Your task to perform on an android device: allow cookies in the chrome app Image 0: 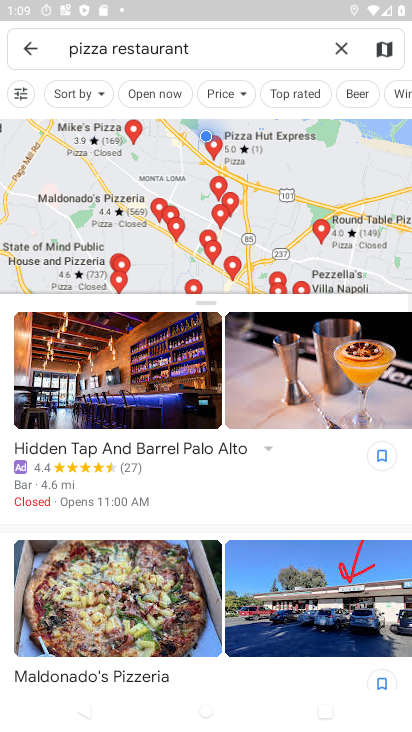
Step 0: press home button
Your task to perform on an android device: allow cookies in the chrome app Image 1: 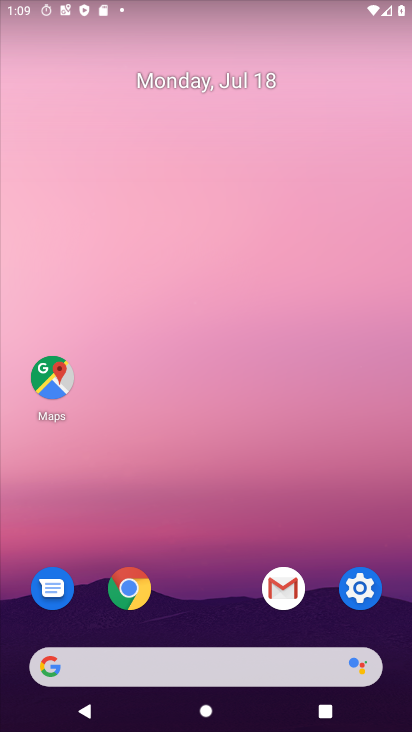
Step 1: click (138, 607)
Your task to perform on an android device: allow cookies in the chrome app Image 2: 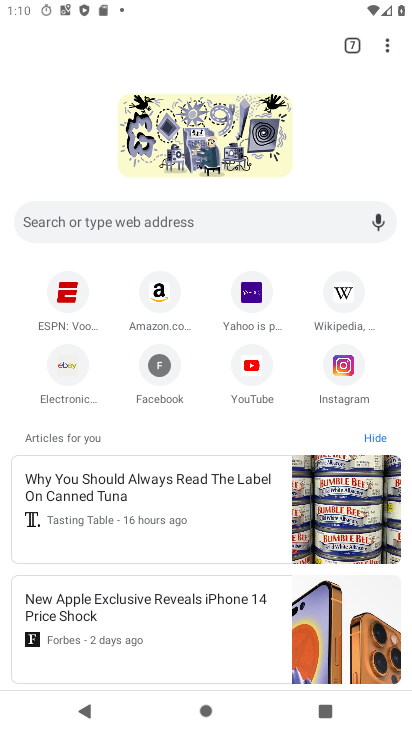
Step 2: click (387, 51)
Your task to perform on an android device: allow cookies in the chrome app Image 3: 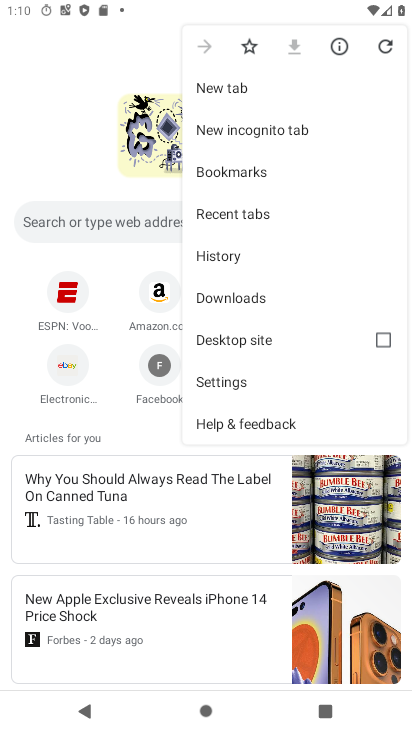
Step 3: click (222, 376)
Your task to perform on an android device: allow cookies in the chrome app Image 4: 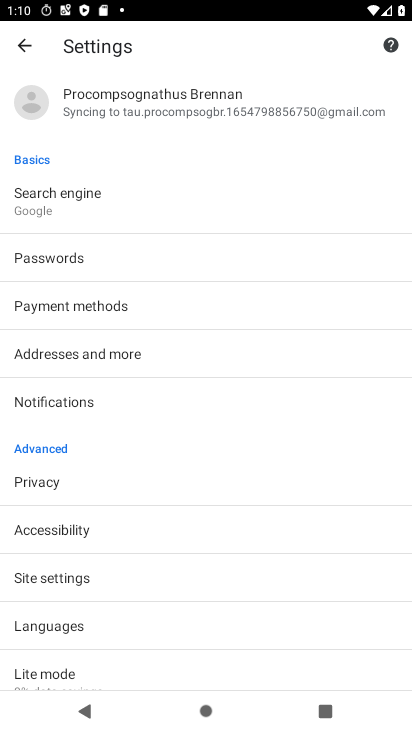
Step 4: click (73, 570)
Your task to perform on an android device: allow cookies in the chrome app Image 5: 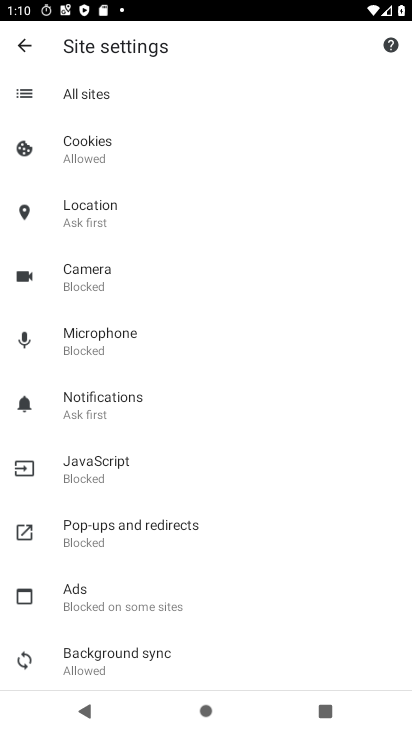
Step 5: click (107, 160)
Your task to perform on an android device: allow cookies in the chrome app Image 6: 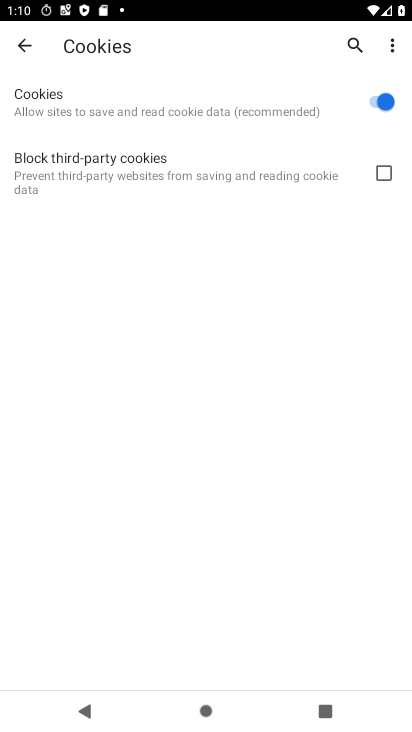
Step 6: click (374, 98)
Your task to perform on an android device: allow cookies in the chrome app Image 7: 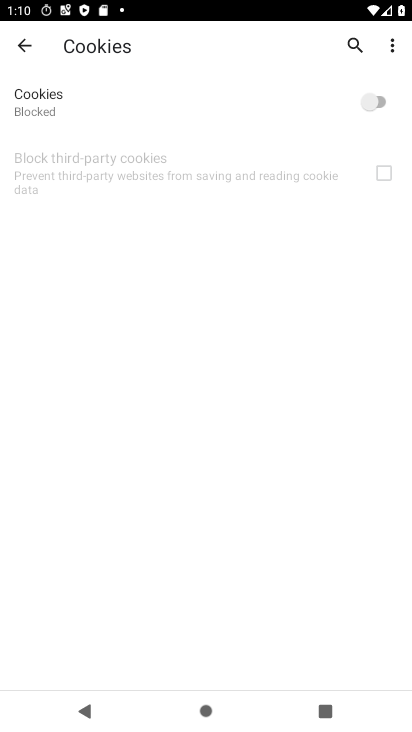
Step 7: click (374, 98)
Your task to perform on an android device: allow cookies in the chrome app Image 8: 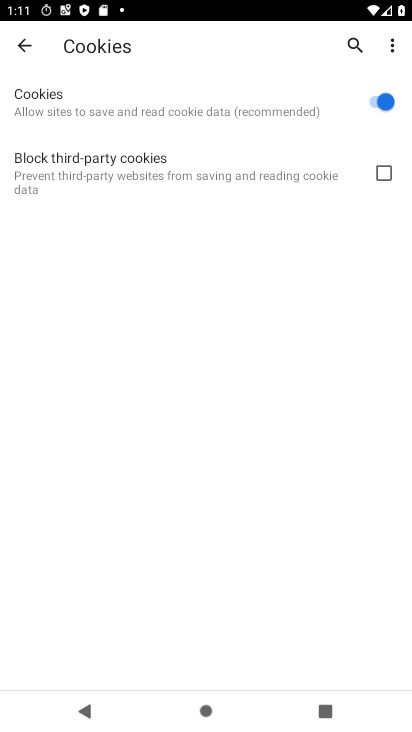
Step 8: task complete